Your task to perform on an android device: Search for "asus zenbook" on amazon.com, select the first entry, and add it to the cart. Image 0: 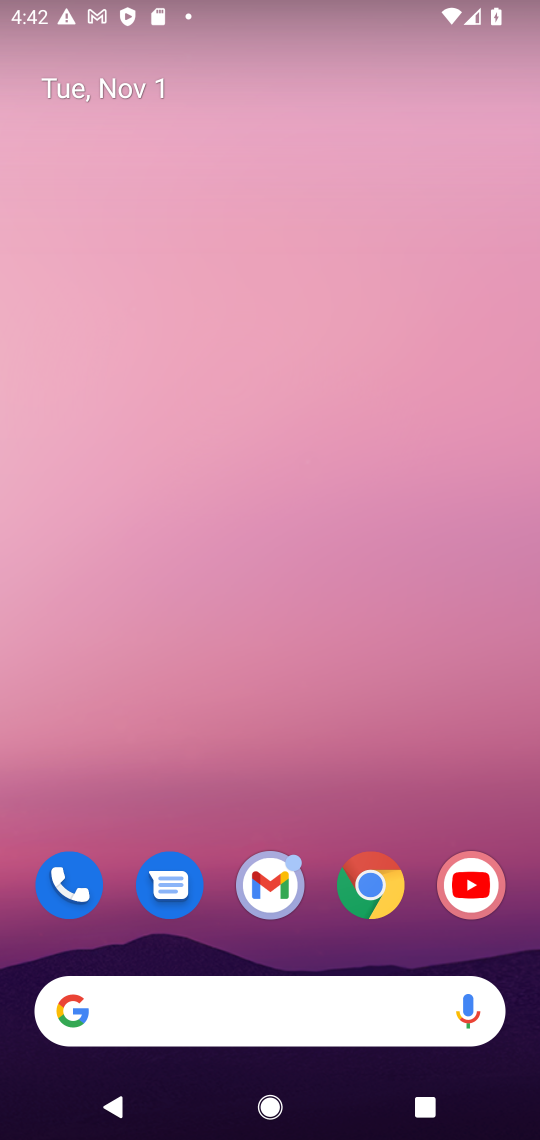
Step 0: click (370, 890)
Your task to perform on an android device: Search for "asus zenbook" on amazon.com, select the first entry, and add it to the cart. Image 1: 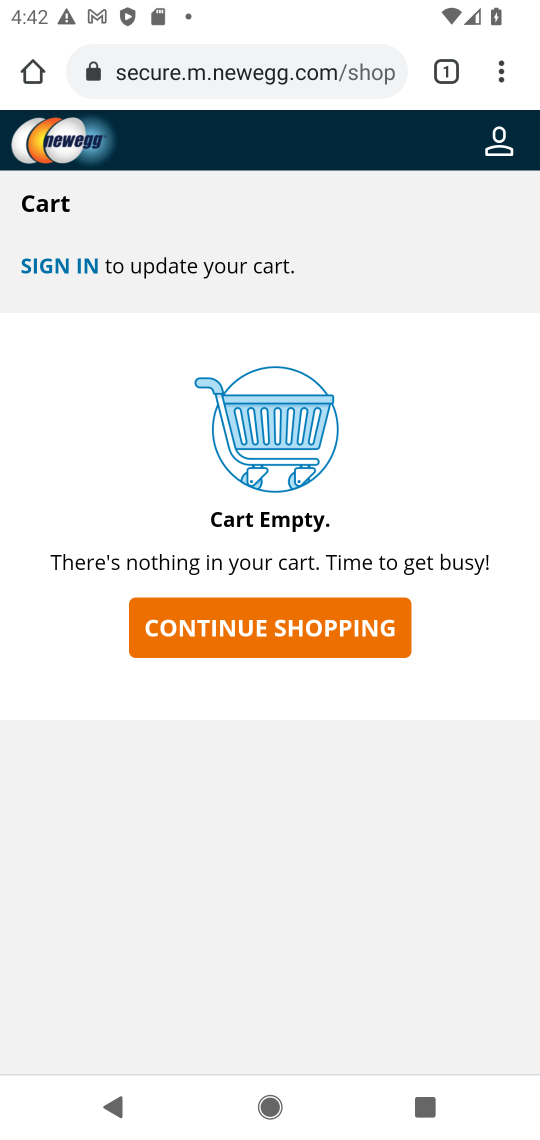
Step 1: click (263, 47)
Your task to perform on an android device: Search for "asus zenbook" on amazon.com, select the first entry, and add it to the cart. Image 2: 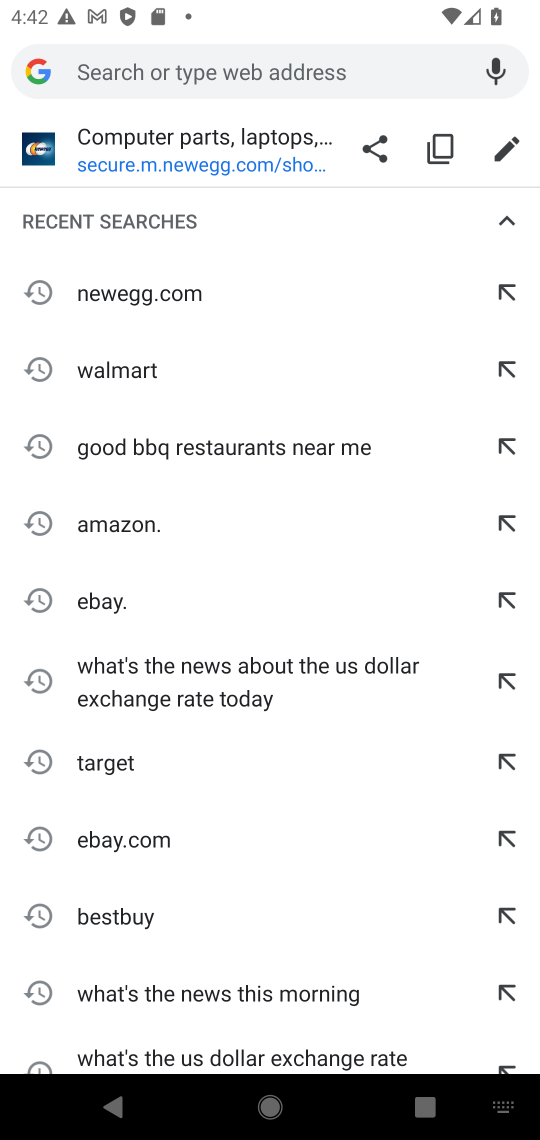
Step 2: type " amazon.com"
Your task to perform on an android device: Search for "asus zenbook" on amazon.com, select the first entry, and add it to the cart. Image 3: 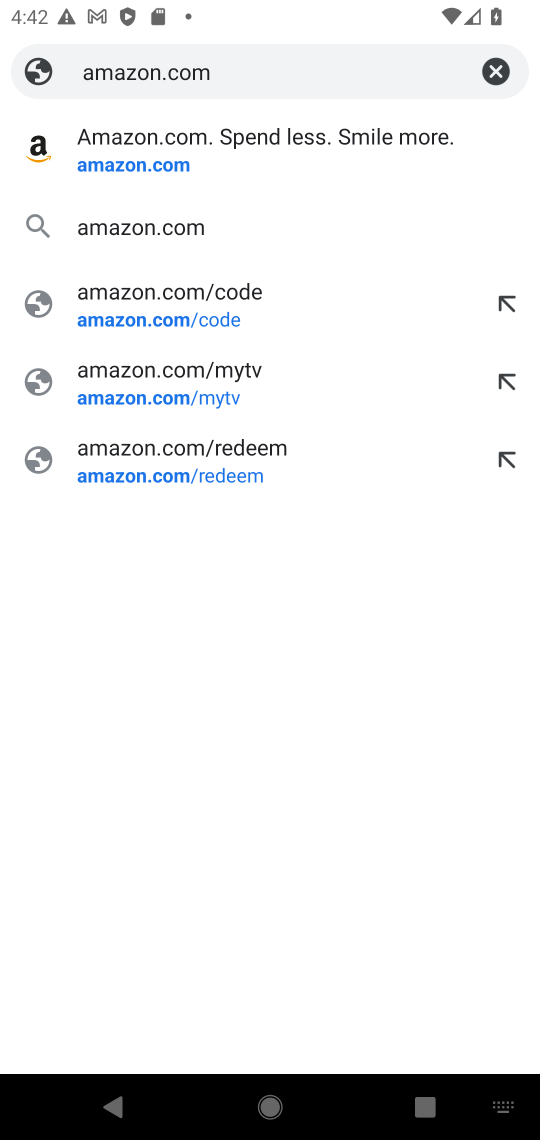
Step 3: click (90, 147)
Your task to perform on an android device: Search for "asus zenbook" on amazon.com, select the first entry, and add it to the cart. Image 4: 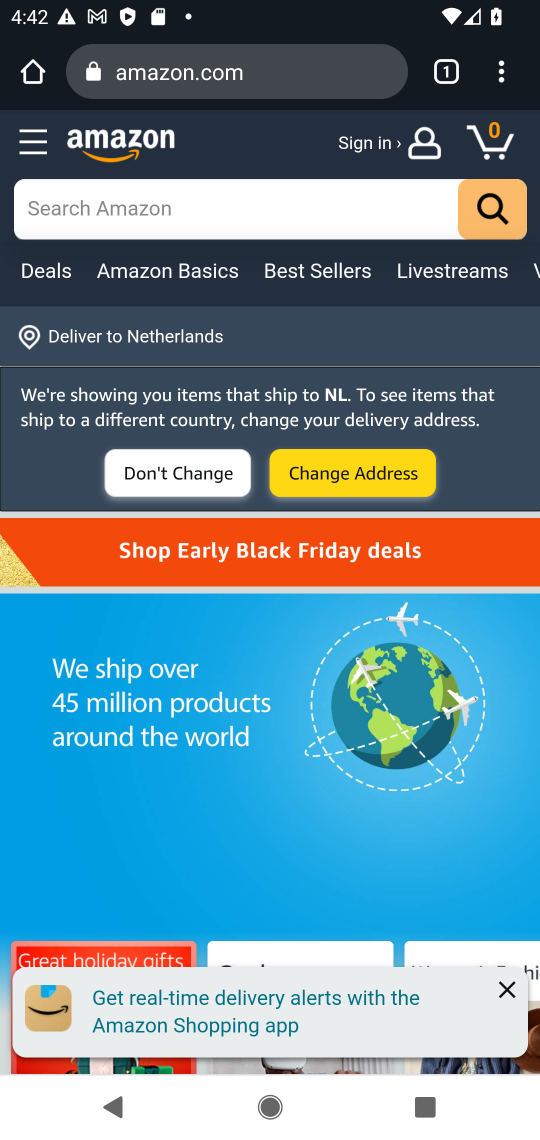
Step 4: click (120, 210)
Your task to perform on an android device: Search for "asus zenbook" on amazon.com, select the first entry, and add it to the cart. Image 5: 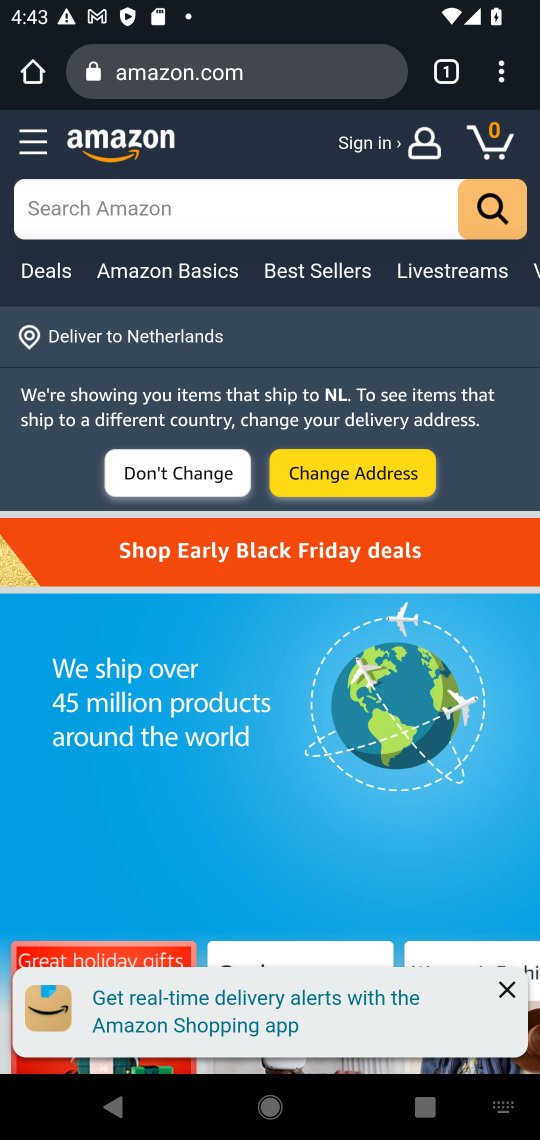
Step 5: type "asus zenbook"
Your task to perform on an android device: Search for "asus zenbook" on amazon.com, select the first entry, and add it to the cart. Image 6: 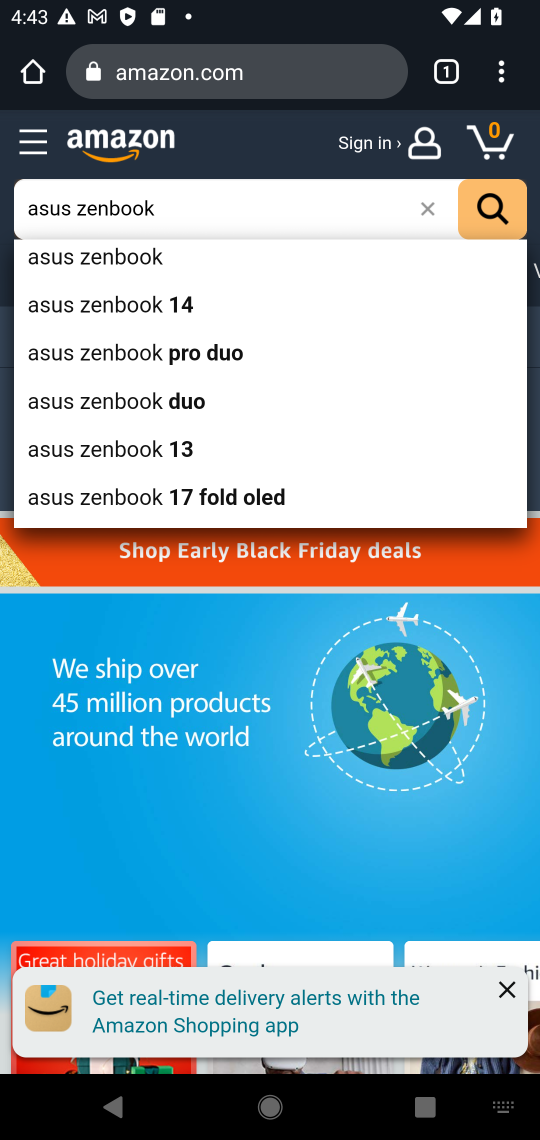
Step 6: click (66, 251)
Your task to perform on an android device: Search for "asus zenbook" on amazon.com, select the first entry, and add it to the cart. Image 7: 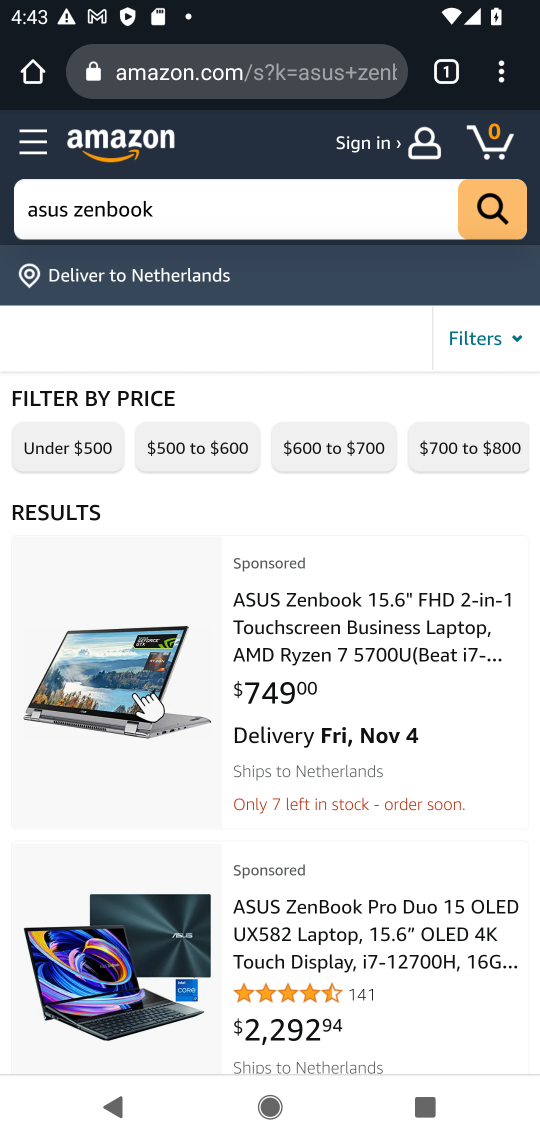
Step 7: click (307, 610)
Your task to perform on an android device: Search for "asus zenbook" on amazon.com, select the first entry, and add it to the cart. Image 8: 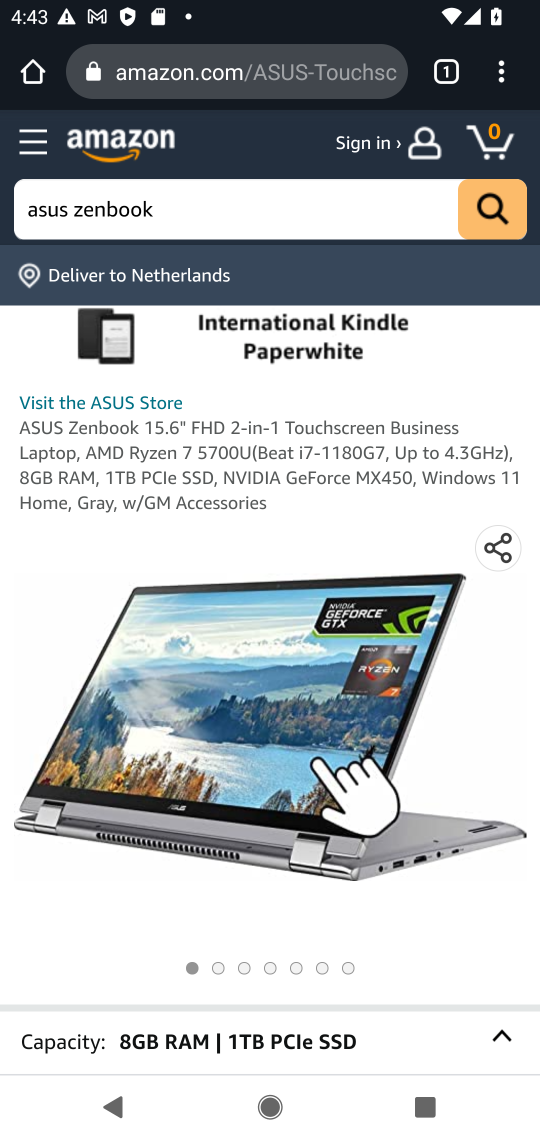
Step 8: drag from (307, 928) to (227, 400)
Your task to perform on an android device: Search for "asus zenbook" on amazon.com, select the first entry, and add it to the cart. Image 9: 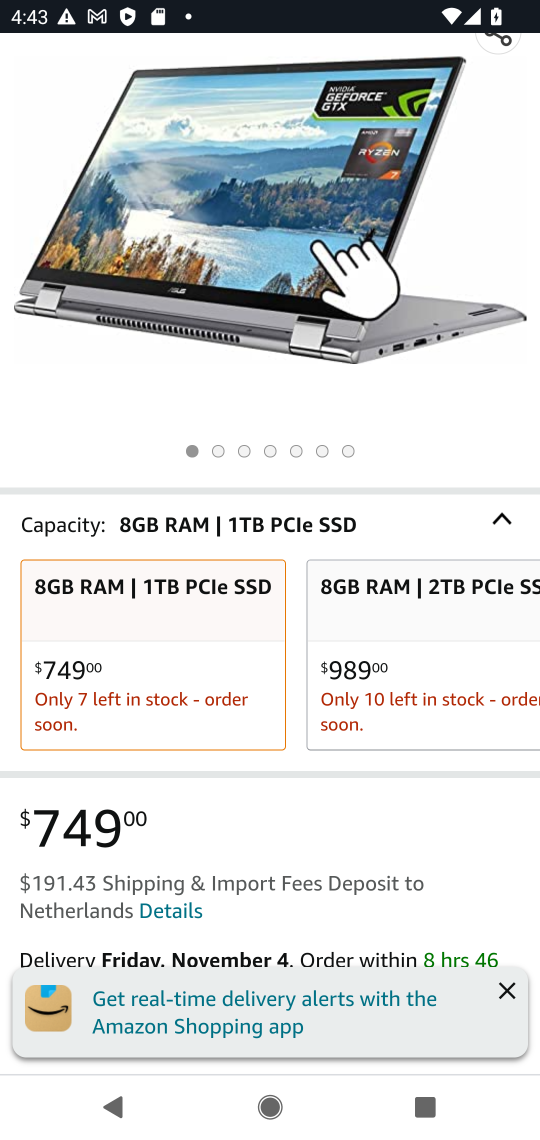
Step 9: drag from (285, 847) to (255, 334)
Your task to perform on an android device: Search for "asus zenbook" on amazon.com, select the first entry, and add it to the cart. Image 10: 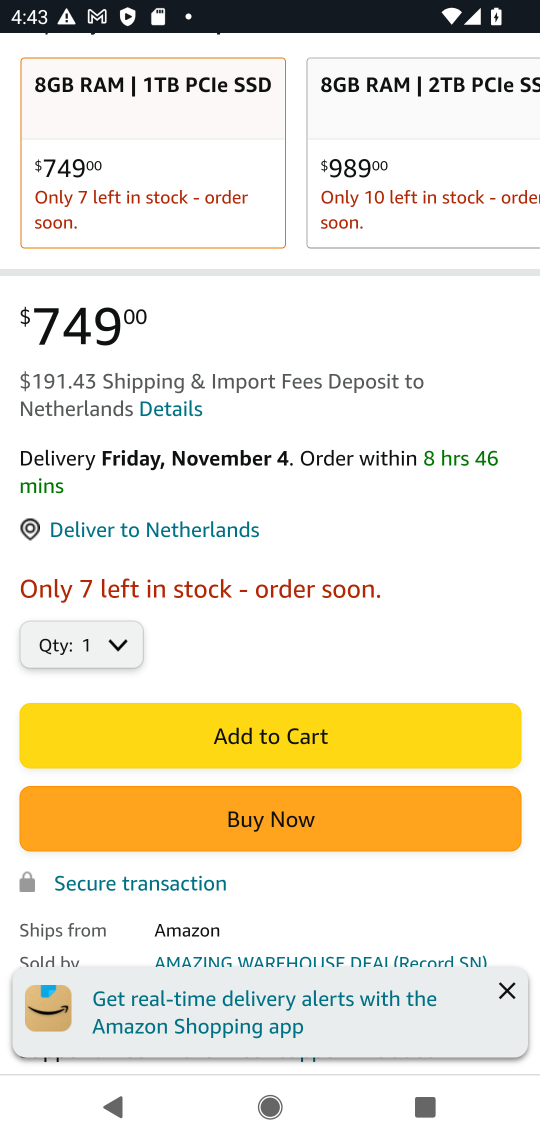
Step 10: click (262, 732)
Your task to perform on an android device: Search for "asus zenbook" on amazon.com, select the first entry, and add it to the cart. Image 11: 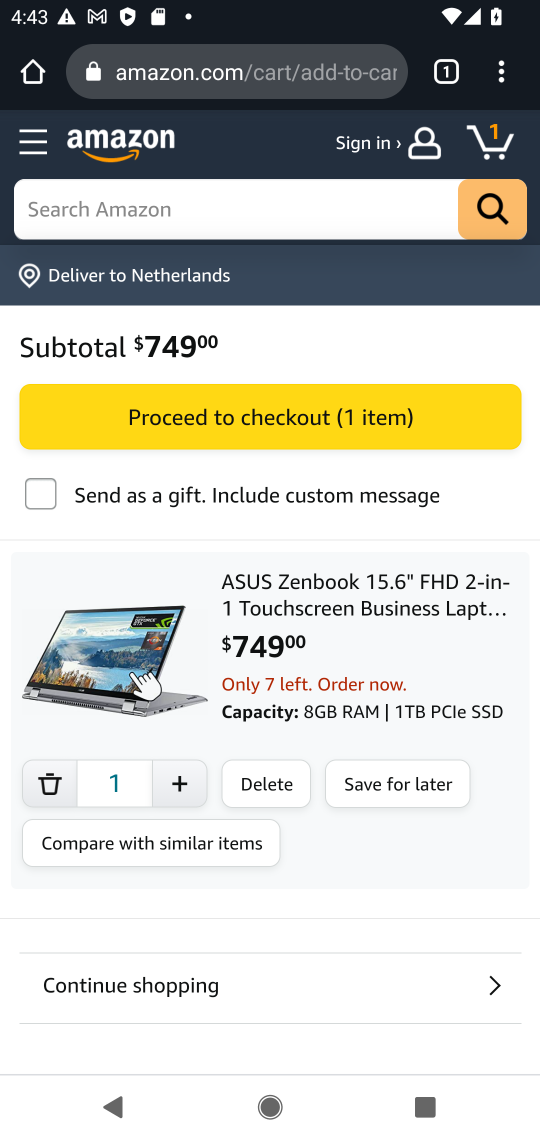
Step 11: task complete